Your task to perform on an android device: turn on priority inbox in the gmail app Image 0: 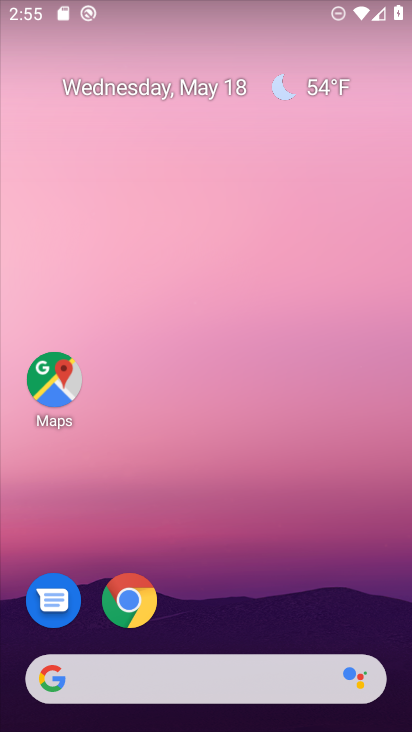
Step 0: drag from (223, 583) to (243, 21)
Your task to perform on an android device: turn on priority inbox in the gmail app Image 1: 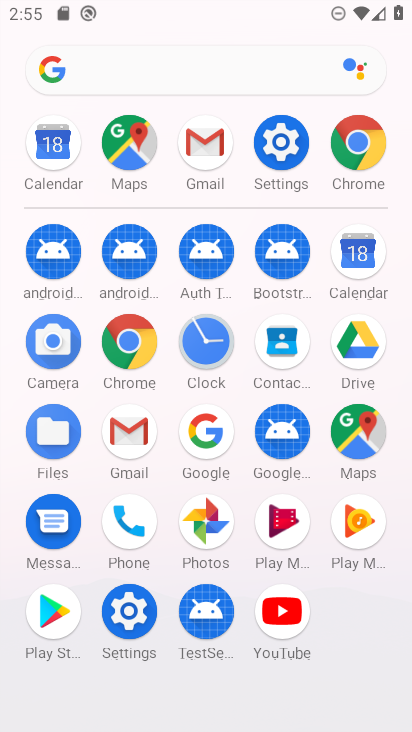
Step 1: click (121, 442)
Your task to perform on an android device: turn on priority inbox in the gmail app Image 2: 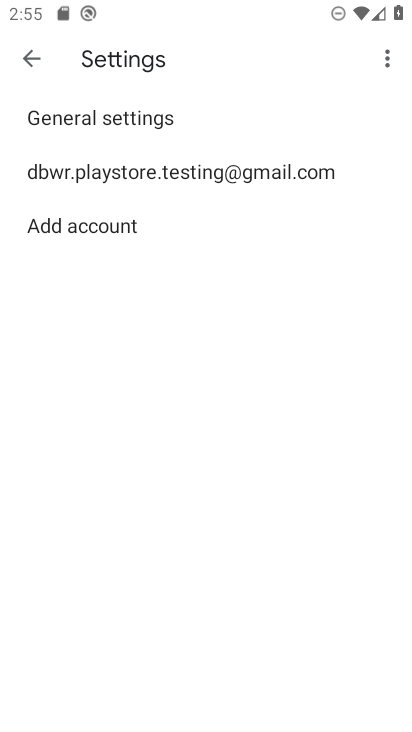
Step 2: click (120, 166)
Your task to perform on an android device: turn on priority inbox in the gmail app Image 3: 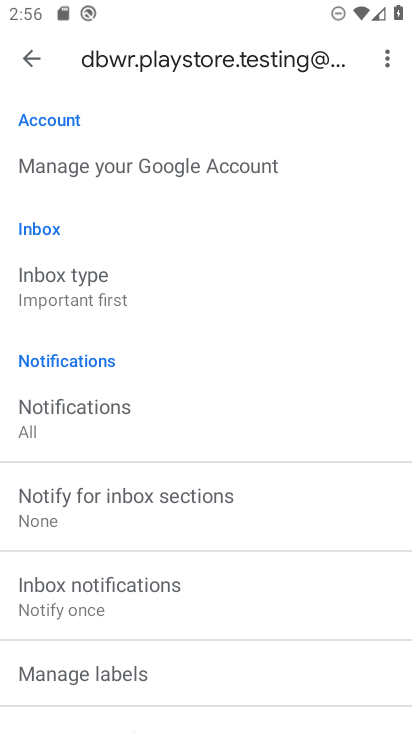
Step 3: click (100, 277)
Your task to perform on an android device: turn on priority inbox in the gmail app Image 4: 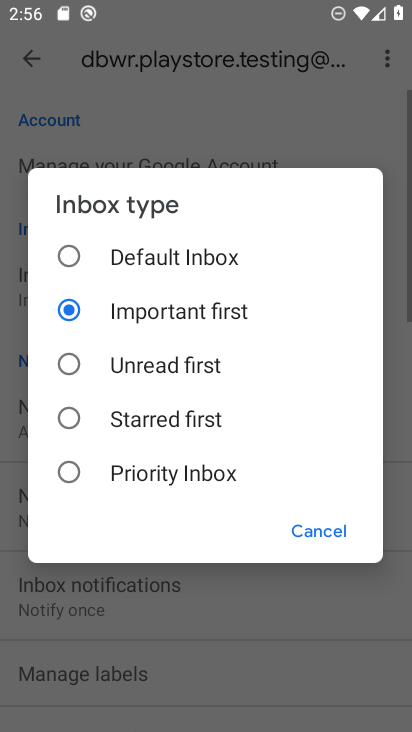
Step 4: click (136, 463)
Your task to perform on an android device: turn on priority inbox in the gmail app Image 5: 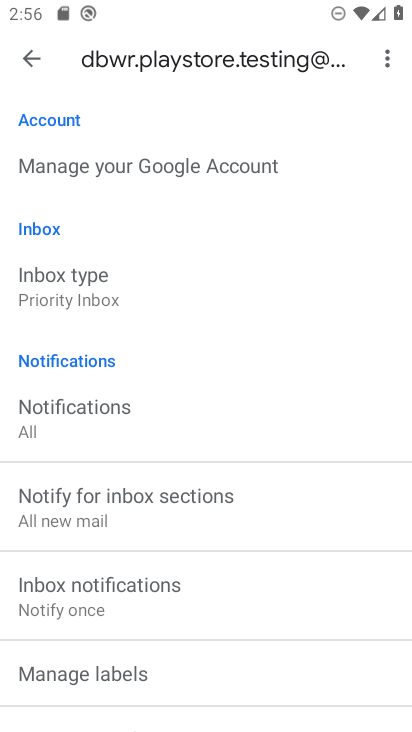
Step 5: task complete